Your task to perform on an android device: Find coffee shops on Maps Image 0: 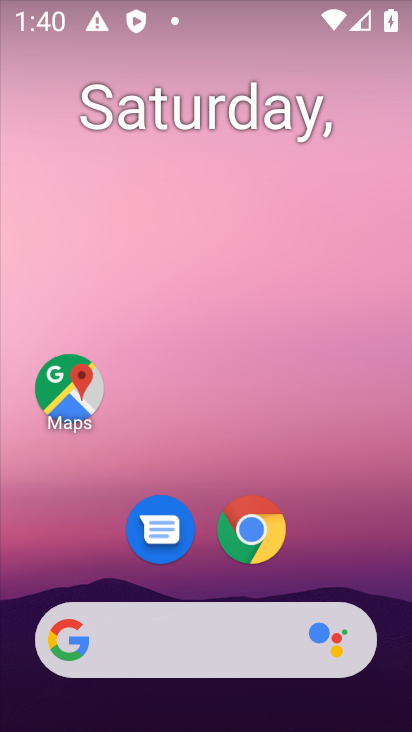
Step 0: click (72, 413)
Your task to perform on an android device: Find coffee shops on Maps Image 1: 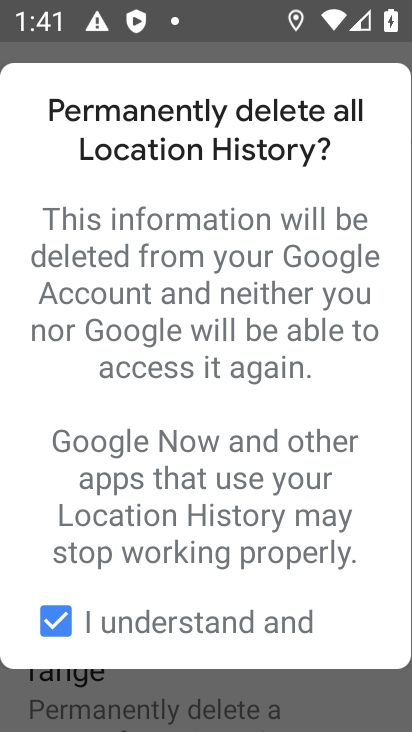
Step 1: press back button
Your task to perform on an android device: Find coffee shops on Maps Image 2: 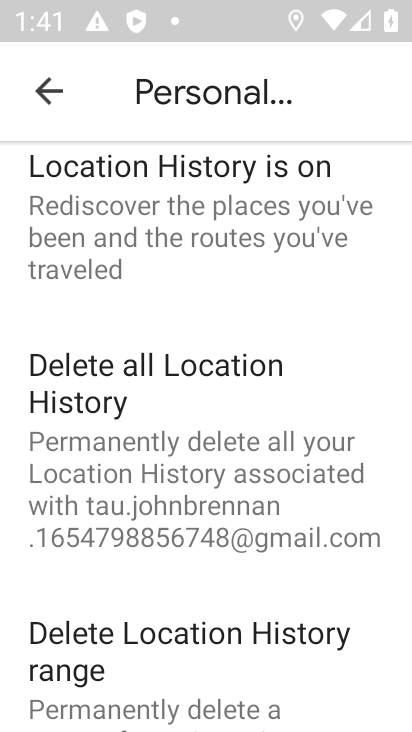
Step 2: press back button
Your task to perform on an android device: Find coffee shops on Maps Image 3: 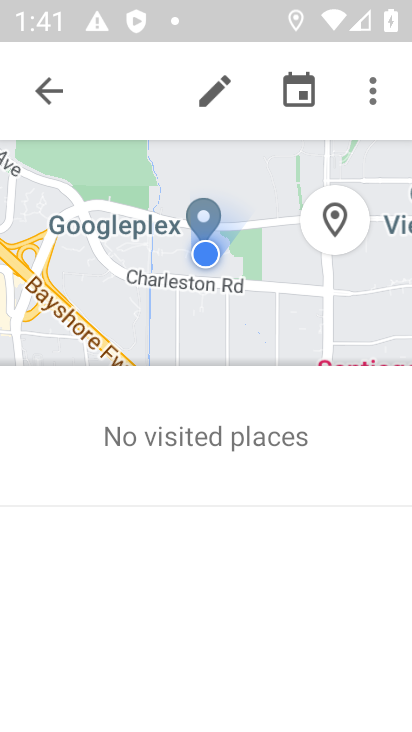
Step 3: press back button
Your task to perform on an android device: Find coffee shops on Maps Image 4: 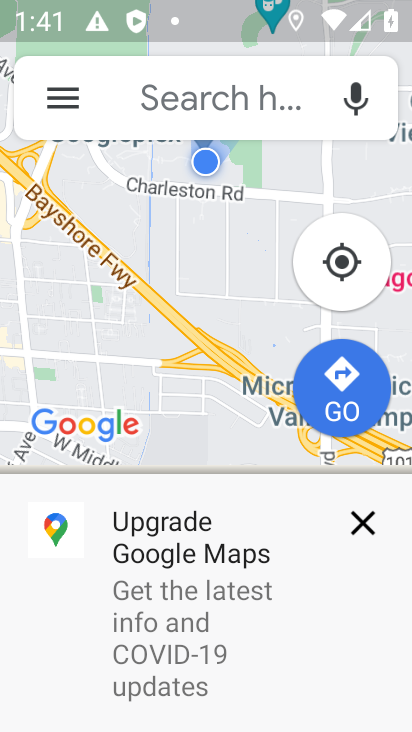
Step 4: click (173, 94)
Your task to perform on an android device: Find coffee shops on Maps Image 5: 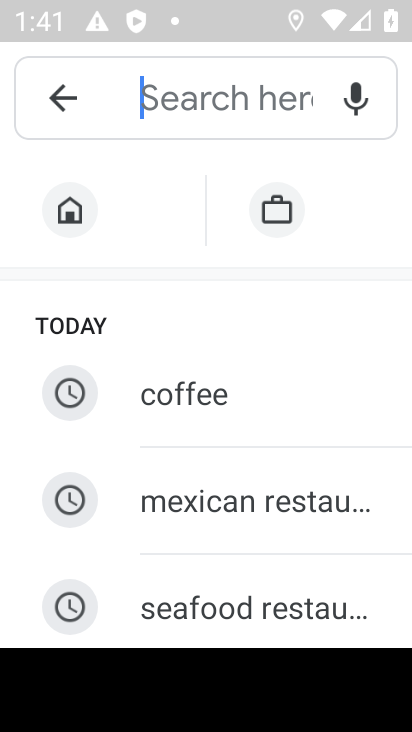
Step 5: type "coffee shops"
Your task to perform on an android device: Find coffee shops on Maps Image 6: 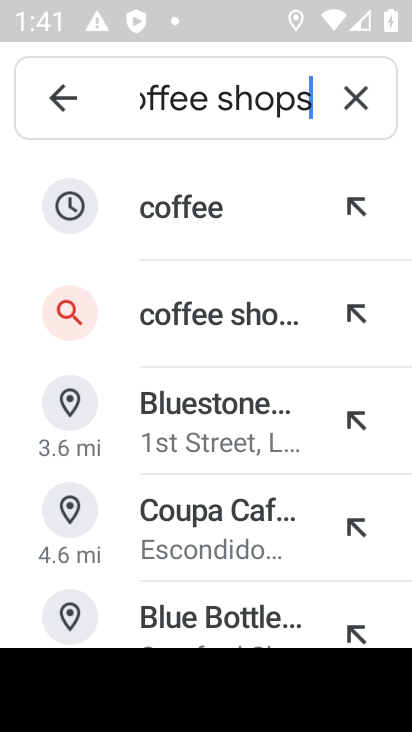
Step 6: click (231, 332)
Your task to perform on an android device: Find coffee shops on Maps Image 7: 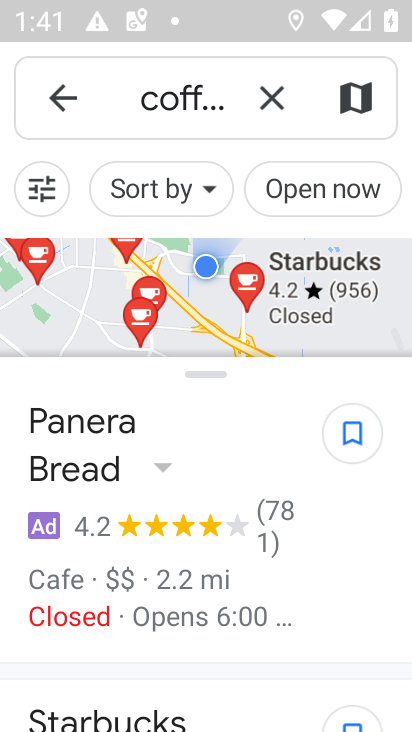
Step 7: task complete